Your task to perform on an android device: Go to wifi settings Image 0: 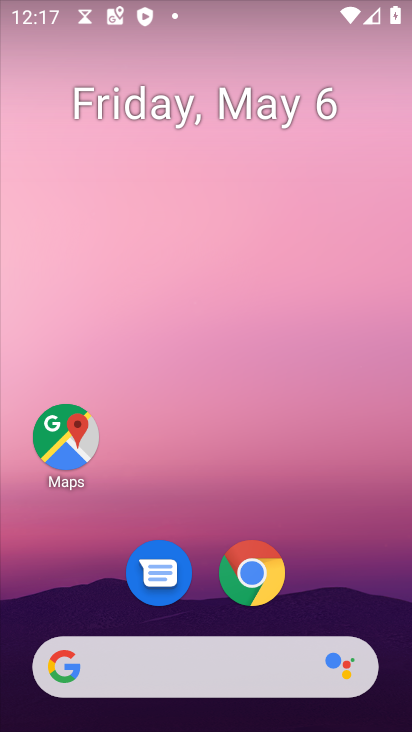
Step 0: drag from (317, 596) to (315, 207)
Your task to perform on an android device: Go to wifi settings Image 1: 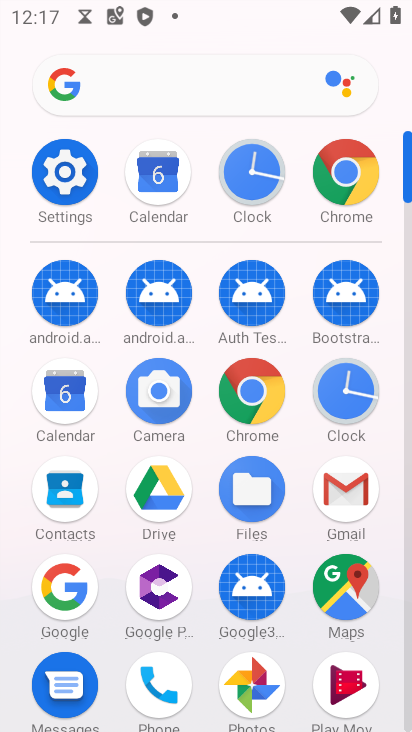
Step 1: click (65, 170)
Your task to perform on an android device: Go to wifi settings Image 2: 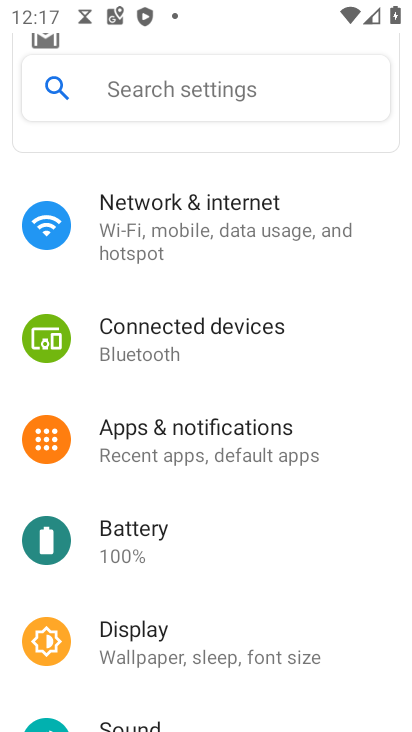
Step 2: click (216, 224)
Your task to perform on an android device: Go to wifi settings Image 3: 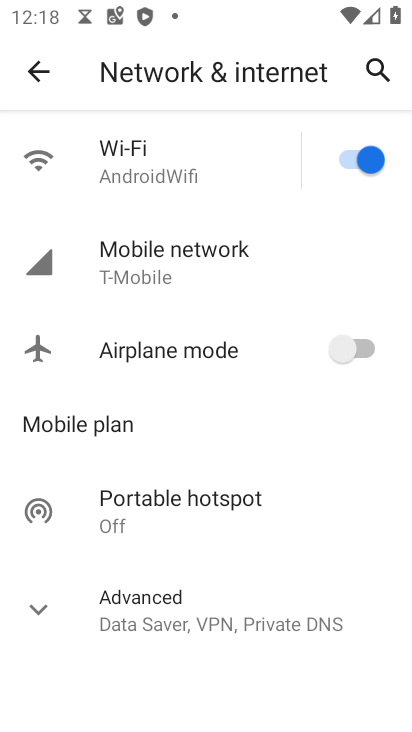
Step 3: task complete